Your task to perform on an android device: turn on location history Image 0: 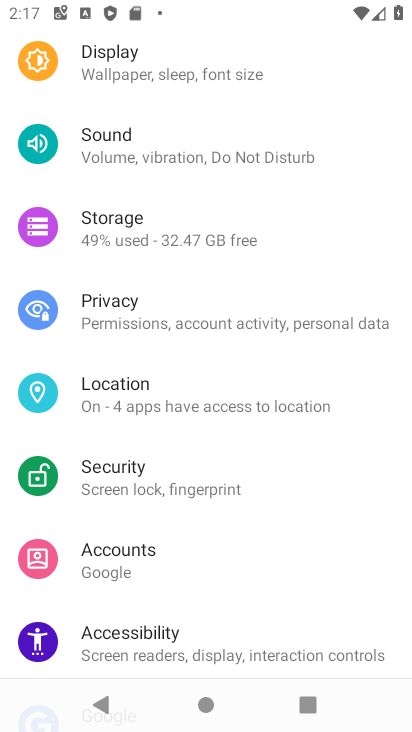
Step 0: click (226, 421)
Your task to perform on an android device: turn on location history Image 1: 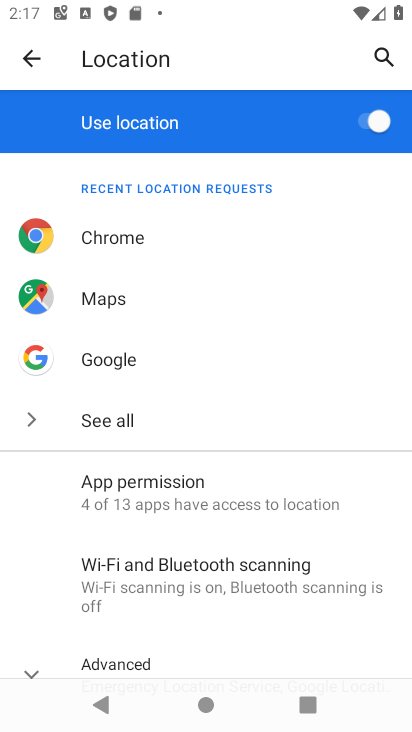
Step 1: drag from (113, 514) to (143, 324)
Your task to perform on an android device: turn on location history Image 2: 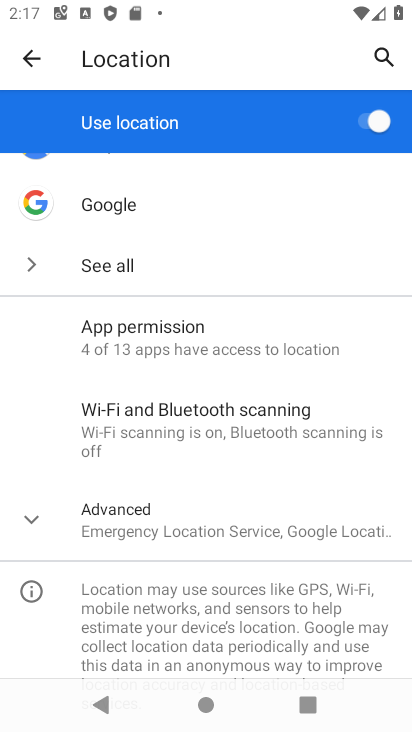
Step 2: click (153, 498)
Your task to perform on an android device: turn on location history Image 3: 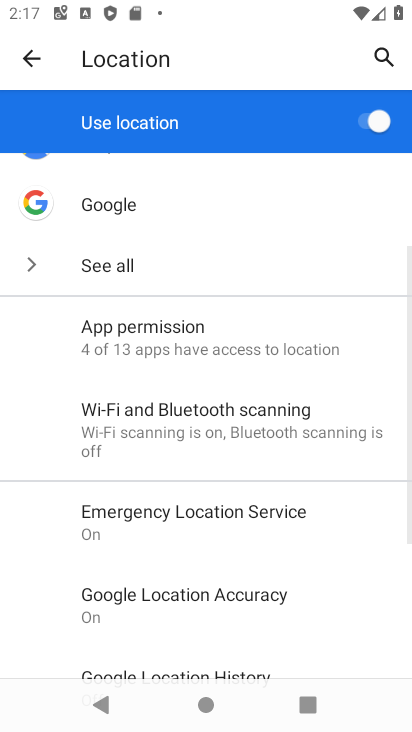
Step 3: click (196, 528)
Your task to perform on an android device: turn on location history Image 4: 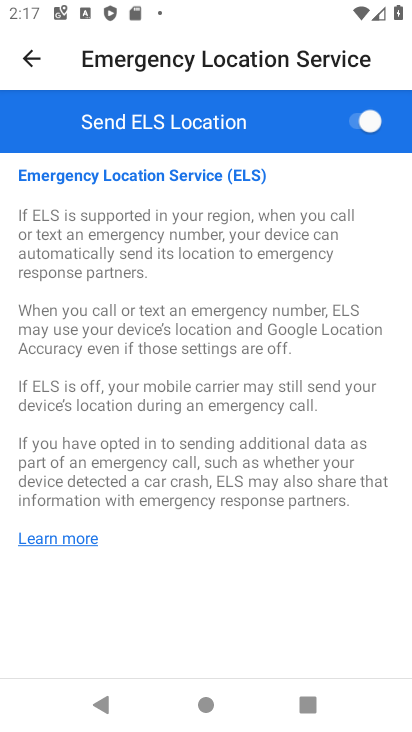
Step 4: task complete